Your task to perform on an android device: refresh tabs in the chrome app Image 0: 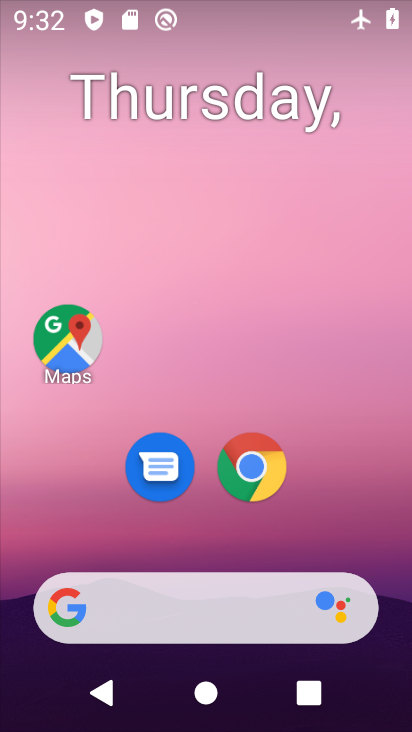
Step 0: drag from (378, 492) to (226, 7)
Your task to perform on an android device: refresh tabs in the chrome app Image 1: 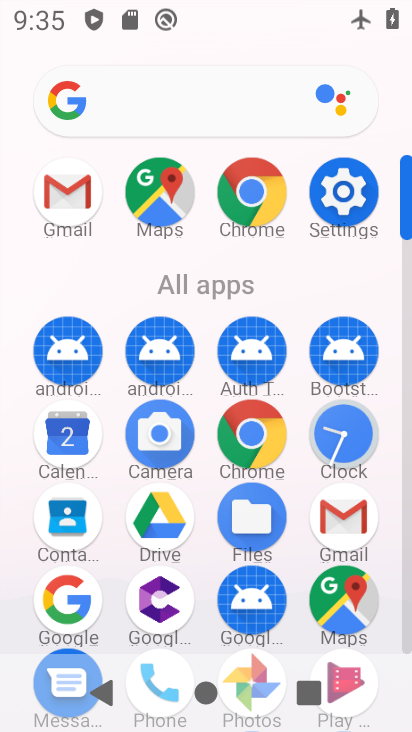
Step 1: click (258, 222)
Your task to perform on an android device: refresh tabs in the chrome app Image 2: 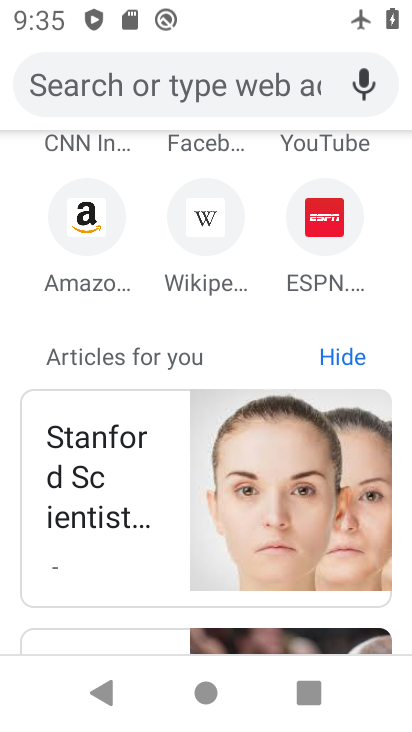
Step 2: drag from (153, 227) to (202, 696)
Your task to perform on an android device: refresh tabs in the chrome app Image 3: 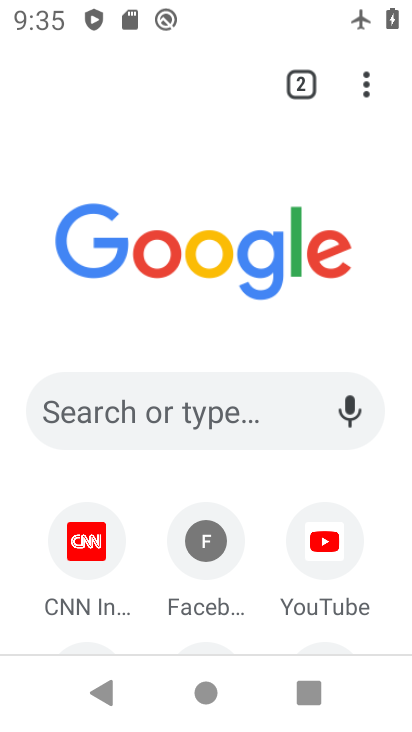
Step 3: click (181, 555)
Your task to perform on an android device: refresh tabs in the chrome app Image 4: 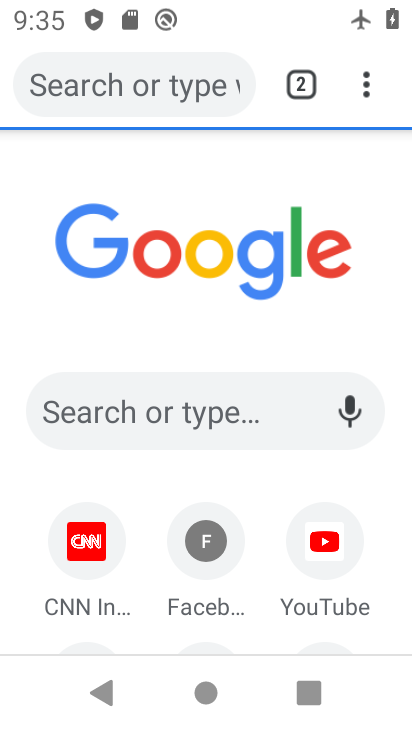
Step 4: click (374, 78)
Your task to perform on an android device: refresh tabs in the chrome app Image 5: 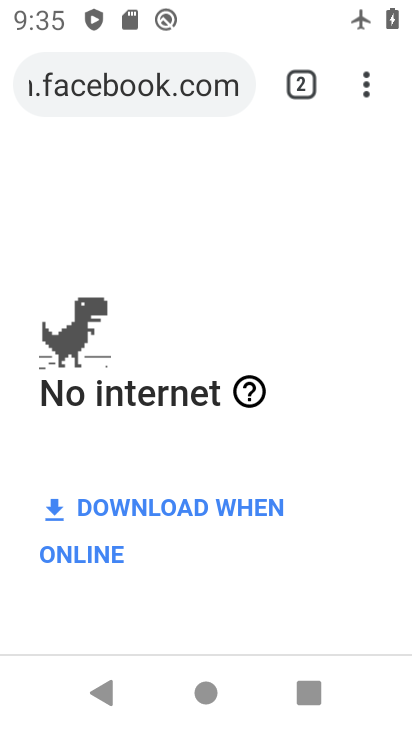
Step 5: task complete